Your task to perform on an android device: turn on showing notifications on the lock screen Image 0: 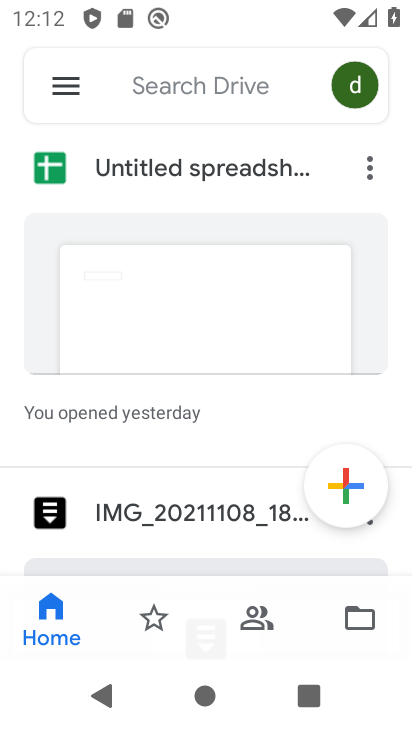
Step 0: press back button
Your task to perform on an android device: turn on showing notifications on the lock screen Image 1: 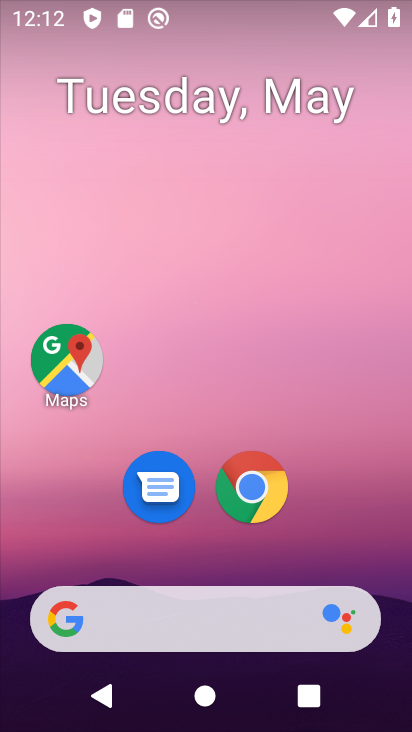
Step 1: drag from (302, 457) to (218, 41)
Your task to perform on an android device: turn on showing notifications on the lock screen Image 2: 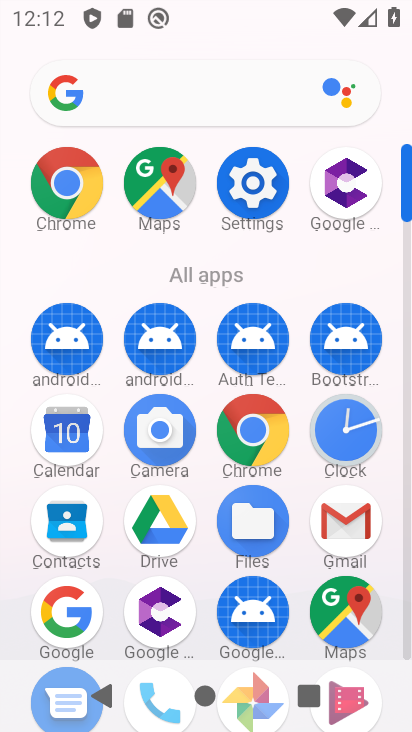
Step 2: drag from (19, 554) to (31, 237)
Your task to perform on an android device: turn on showing notifications on the lock screen Image 3: 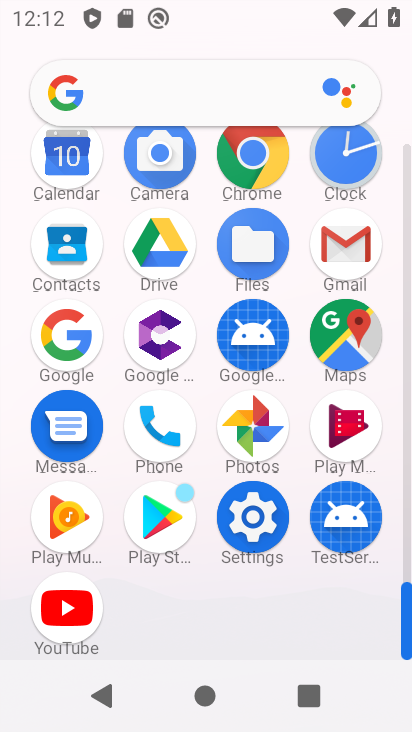
Step 3: click (252, 510)
Your task to perform on an android device: turn on showing notifications on the lock screen Image 4: 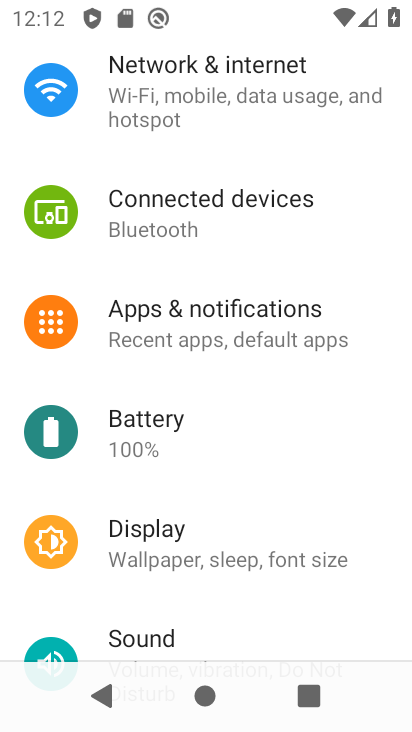
Step 4: click (240, 299)
Your task to perform on an android device: turn on showing notifications on the lock screen Image 5: 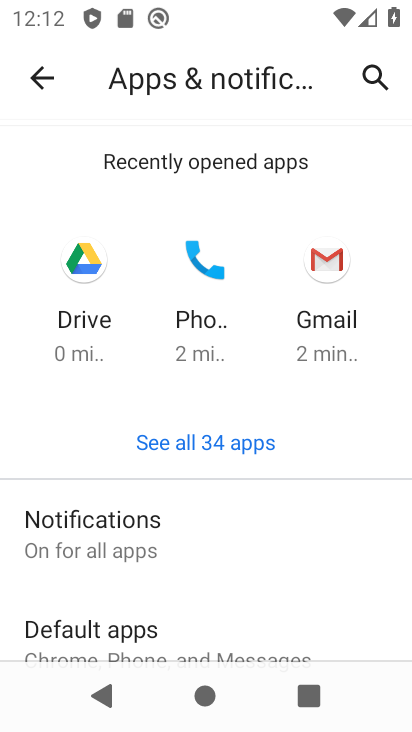
Step 5: click (190, 498)
Your task to perform on an android device: turn on showing notifications on the lock screen Image 6: 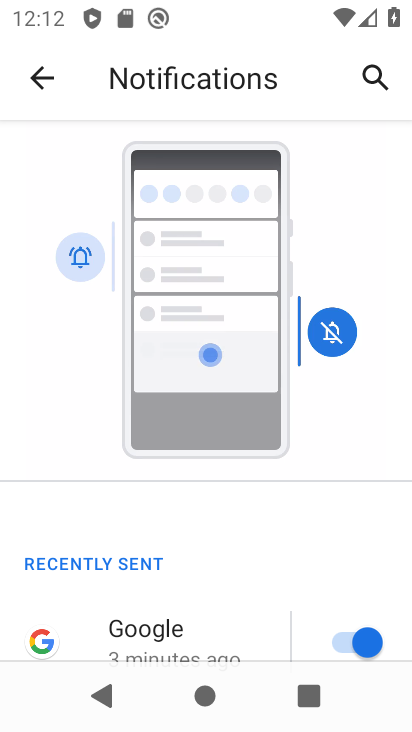
Step 6: drag from (100, 544) to (143, 122)
Your task to perform on an android device: turn on showing notifications on the lock screen Image 7: 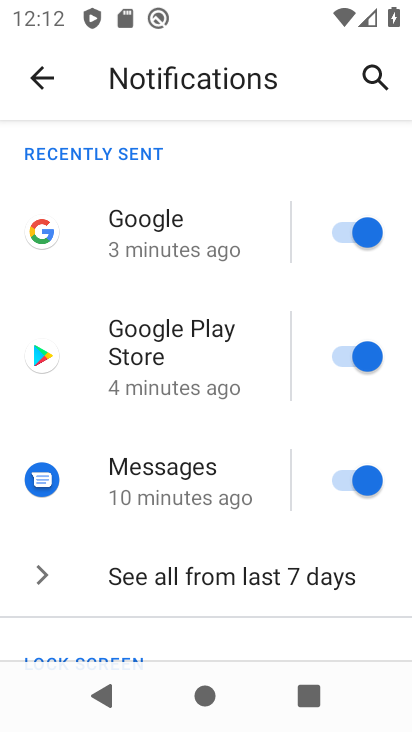
Step 7: drag from (166, 585) to (200, 88)
Your task to perform on an android device: turn on showing notifications on the lock screen Image 8: 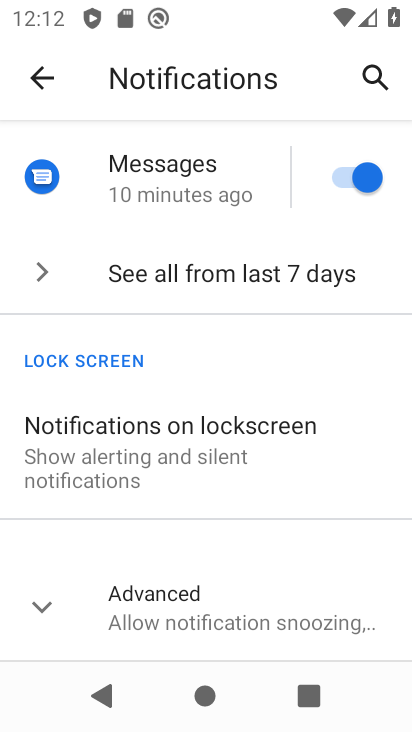
Step 8: click (180, 464)
Your task to perform on an android device: turn on showing notifications on the lock screen Image 9: 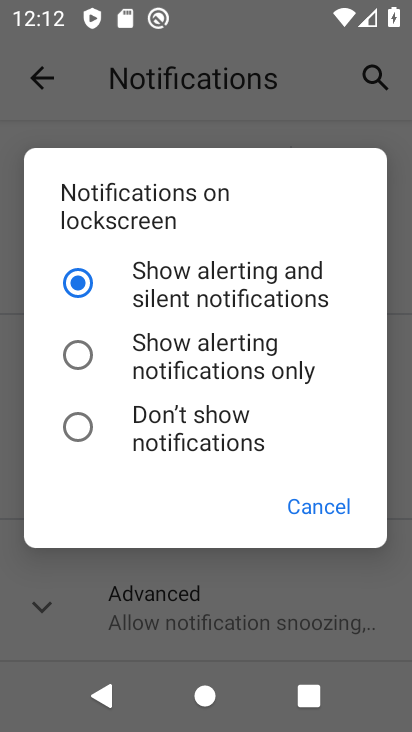
Step 9: click (191, 270)
Your task to perform on an android device: turn on showing notifications on the lock screen Image 10: 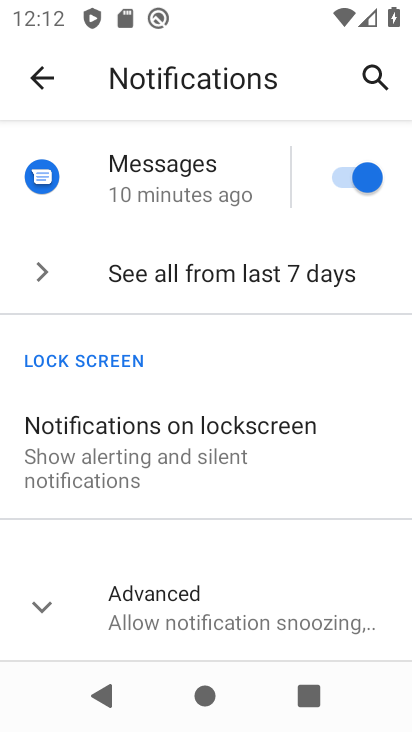
Step 10: task complete